Your task to perform on an android device: Go to CNN.com Image 0: 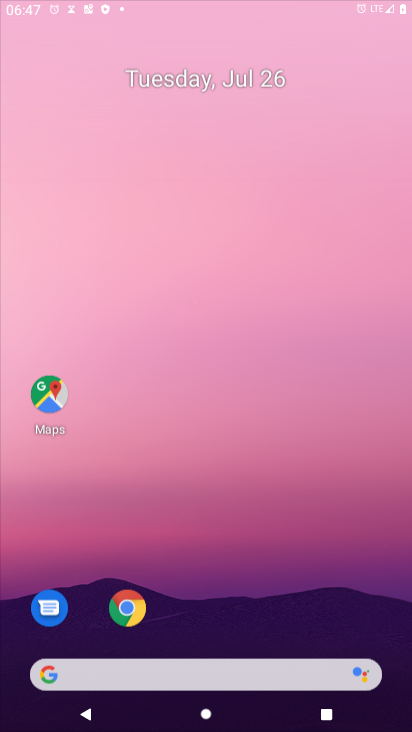
Step 0: press home button
Your task to perform on an android device: Go to CNN.com Image 1: 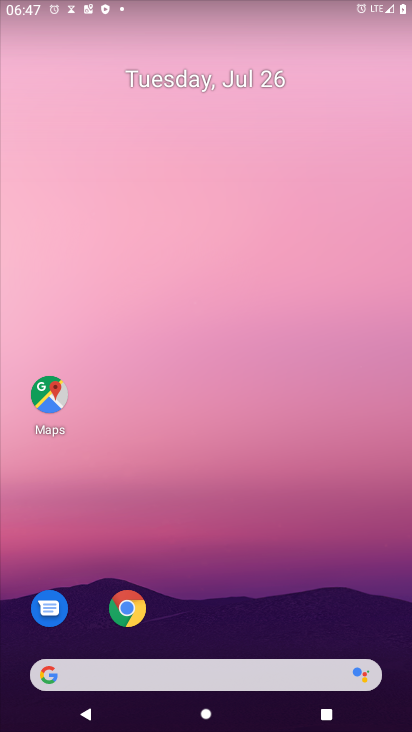
Step 1: click (47, 679)
Your task to perform on an android device: Go to CNN.com Image 2: 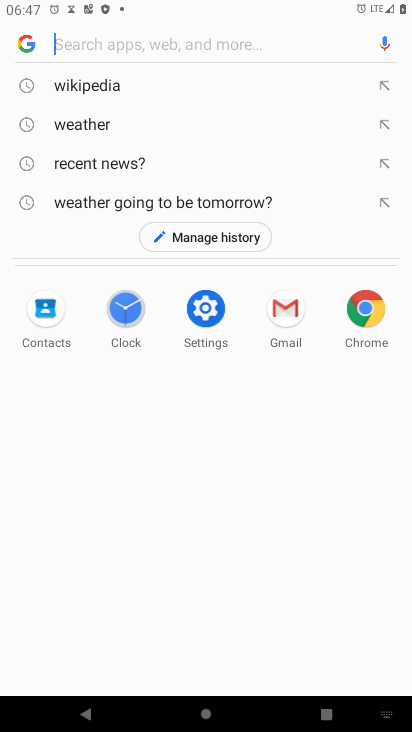
Step 2: type "CNN.com"
Your task to perform on an android device: Go to CNN.com Image 3: 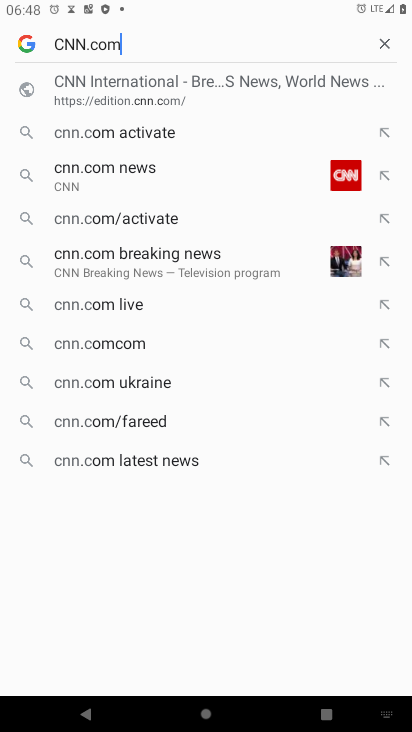
Step 3: press enter
Your task to perform on an android device: Go to CNN.com Image 4: 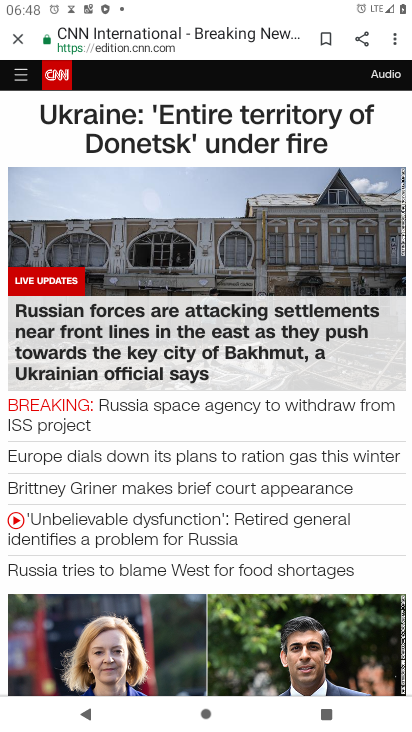
Step 4: task complete